Your task to perform on an android device: open app "Google Chat" (install if not already installed) Image 0: 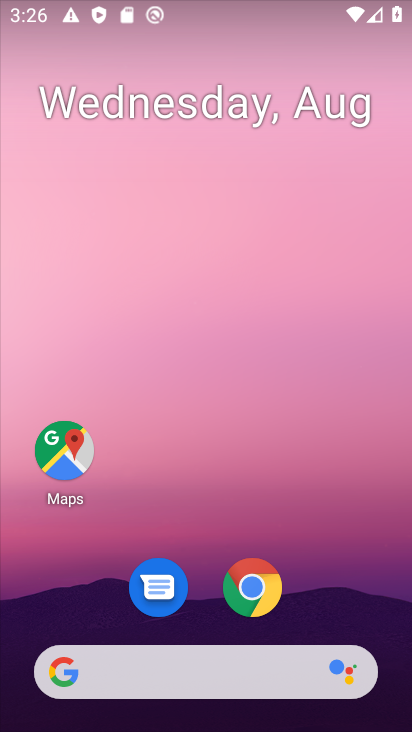
Step 0: press home button
Your task to perform on an android device: open app "Google Chat" (install if not already installed) Image 1: 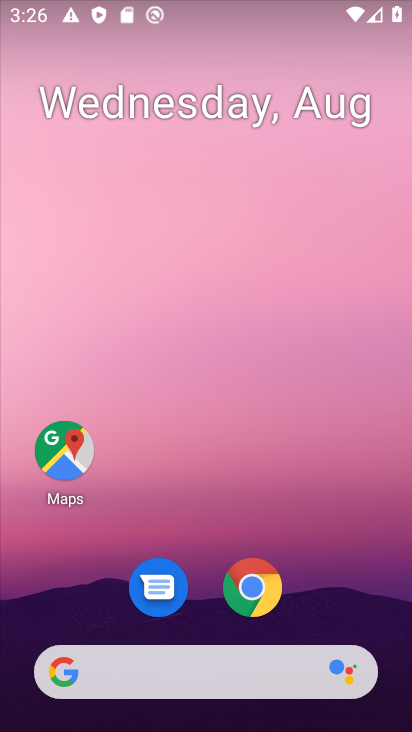
Step 1: drag from (207, 545) to (232, 40)
Your task to perform on an android device: open app "Google Chat" (install if not already installed) Image 2: 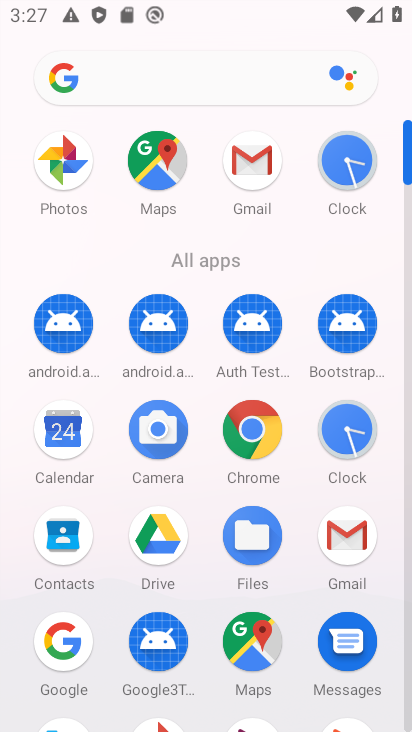
Step 2: drag from (203, 599) to (248, 13)
Your task to perform on an android device: open app "Google Chat" (install if not already installed) Image 3: 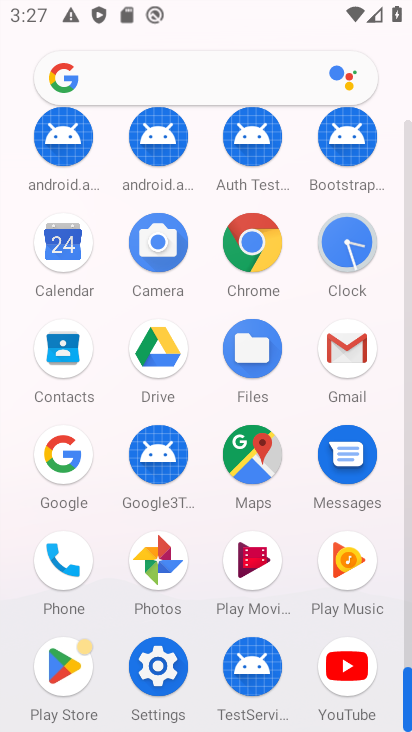
Step 3: click (59, 666)
Your task to perform on an android device: open app "Google Chat" (install if not already installed) Image 4: 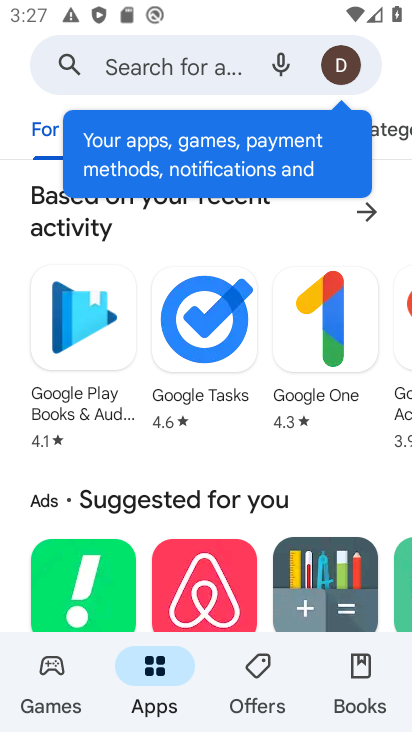
Step 4: click (140, 54)
Your task to perform on an android device: open app "Google Chat" (install if not already installed) Image 5: 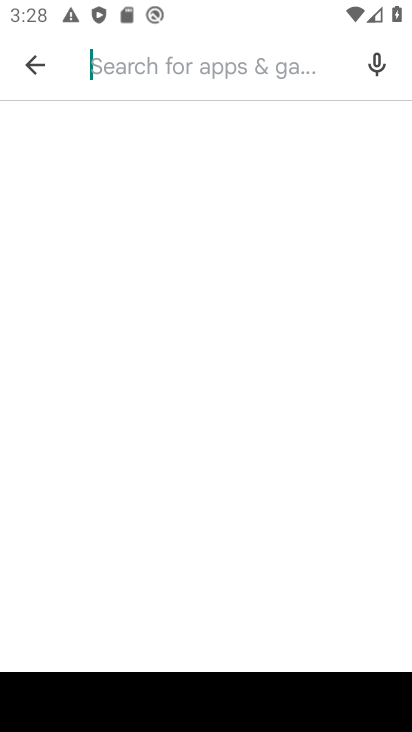
Step 5: type "Google Chat"
Your task to perform on an android device: open app "Google Chat" (install if not already installed) Image 6: 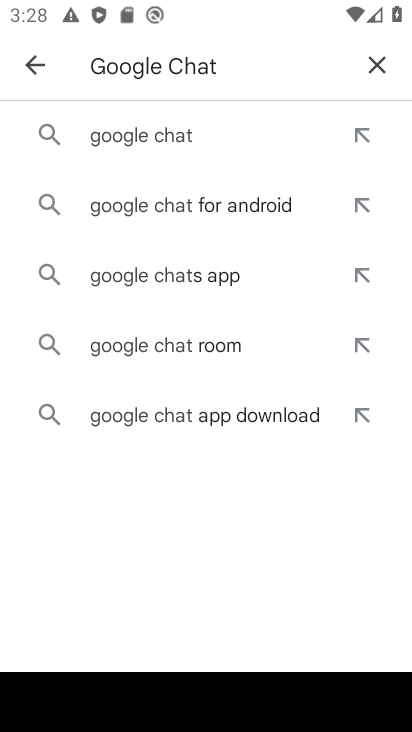
Step 6: click (154, 147)
Your task to perform on an android device: open app "Google Chat" (install if not already installed) Image 7: 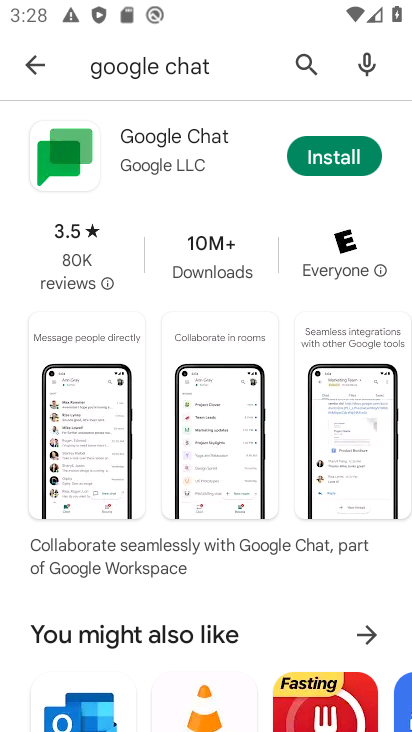
Step 7: click (336, 157)
Your task to perform on an android device: open app "Google Chat" (install if not already installed) Image 8: 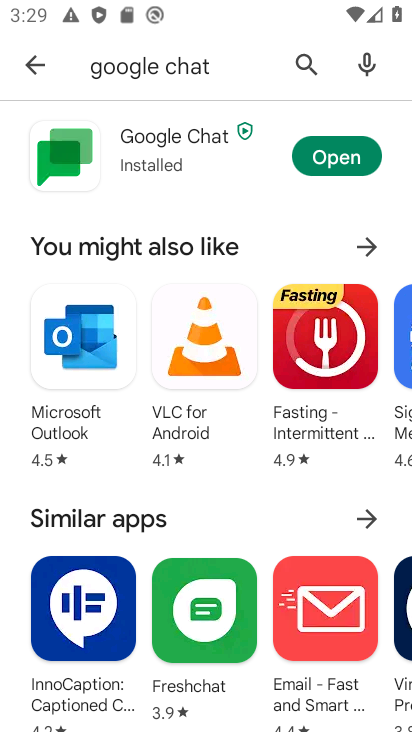
Step 8: click (333, 160)
Your task to perform on an android device: open app "Google Chat" (install if not already installed) Image 9: 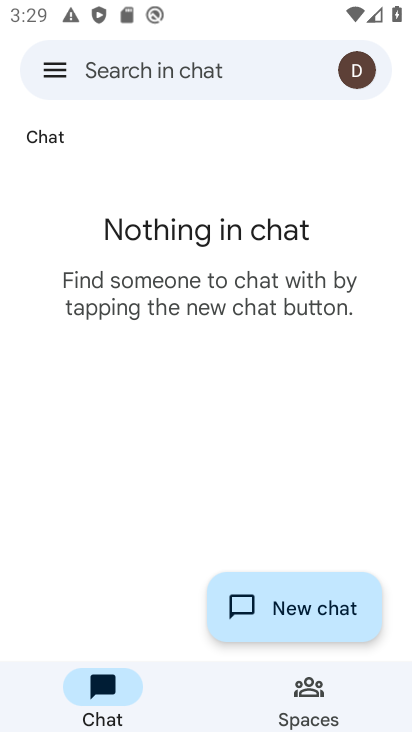
Step 9: task complete